Your task to perform on an android device: turn off priority inbox in the gmail app Image 0: 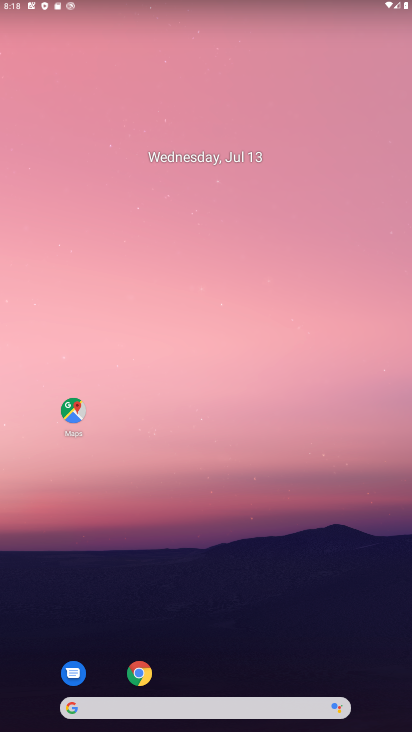
Step 0: drag from (320, 552) to (215, 99)
Your task to perform on an android device: turn off priority inbox in the gmail app Image 1: 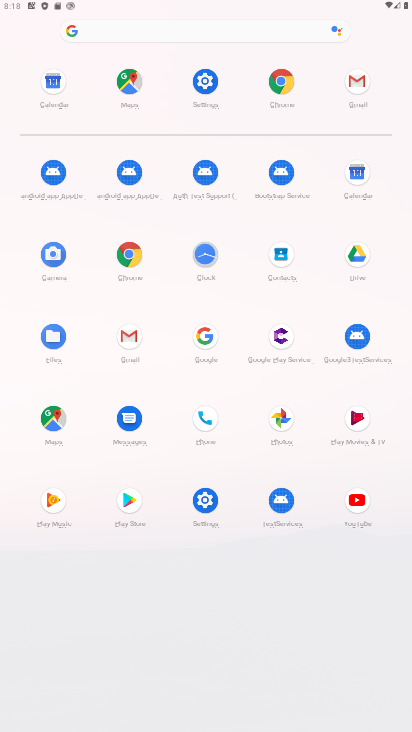
Step 1: click (357, 81)
Your task to perform on an android device: turn off priority inbox in the gmail app Image 2: 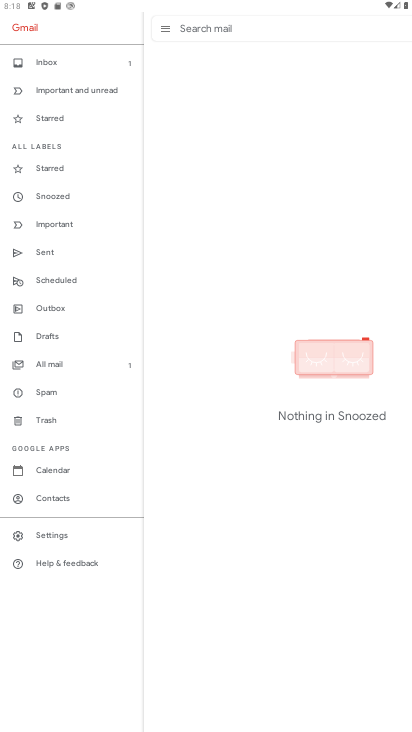
Step 2: click (56, 531)
Your task to perform on an android device: turn off priority inbox in the gmail app Image 3: 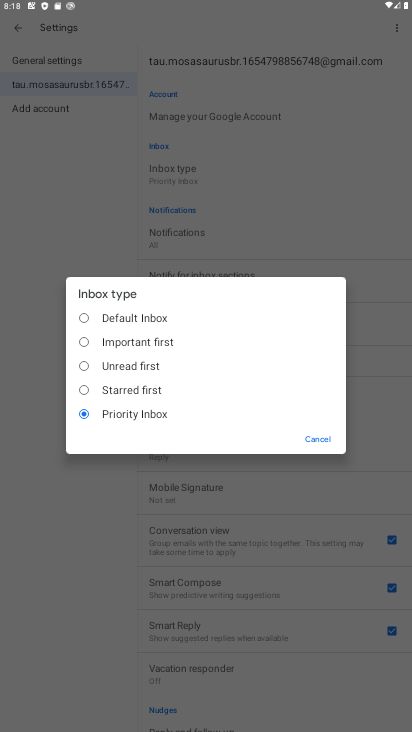
Step 3: task complete